Your task to perform on an android device: turn on wifi Image 0: 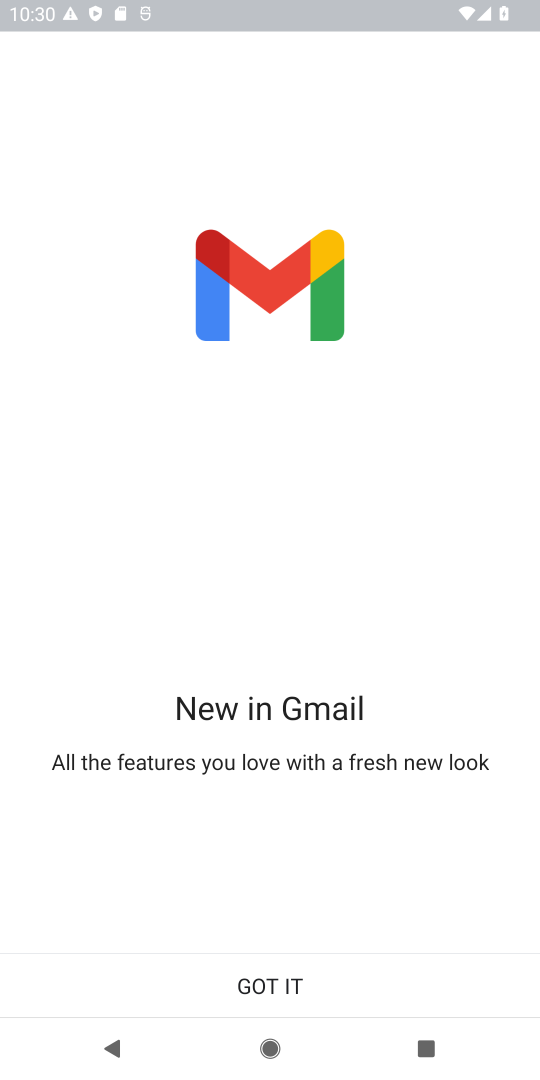
Step 0: press back button
Your task to perform on an android device: turn on wifi Image 1: 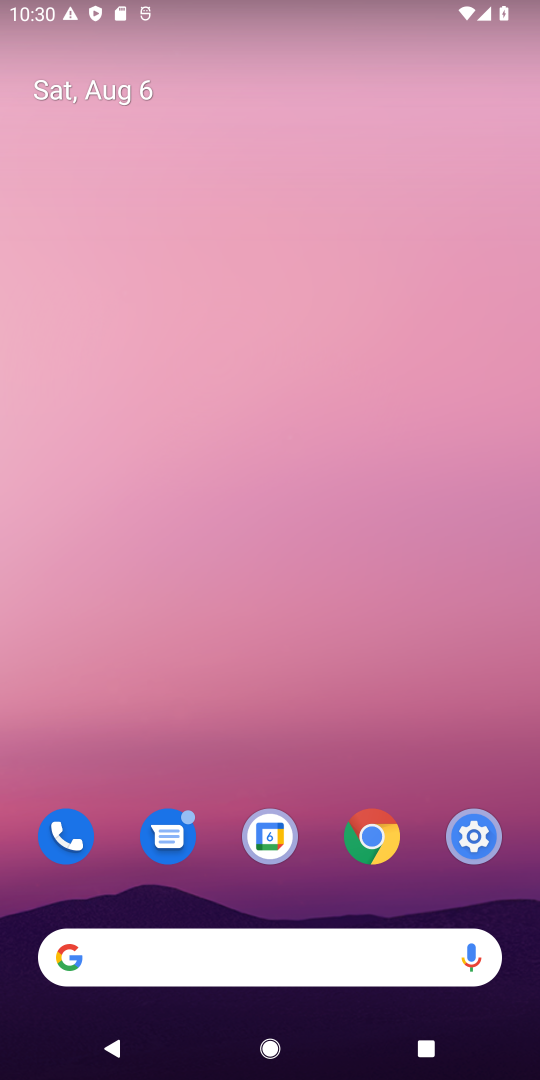
Step 1: click (460, 847)
Your task to perform on an android device: turn on wifi Image 2: 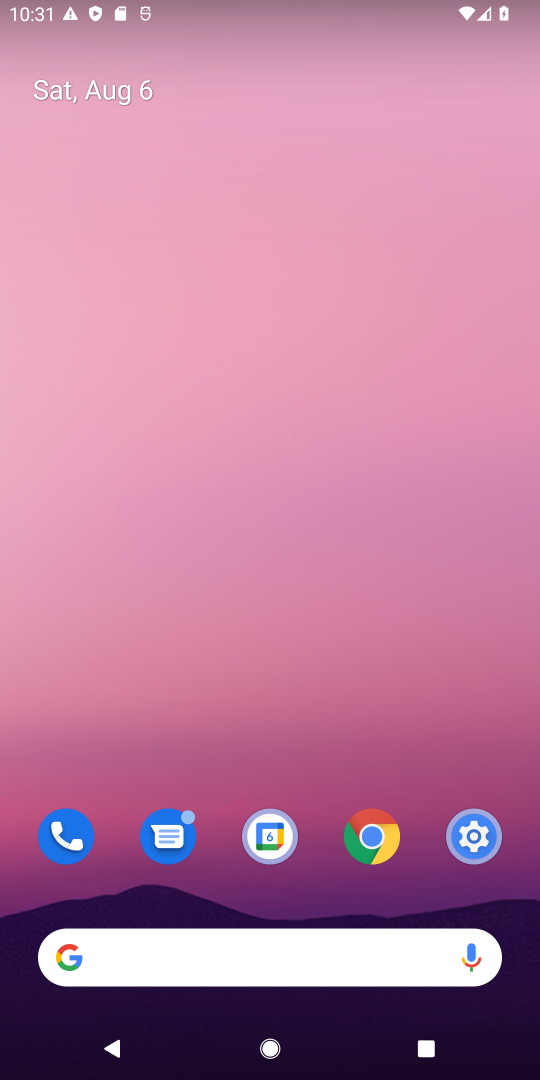
Step 2: click (476, 837)
Your task to perform on an android device: turn on wifi Image 3: 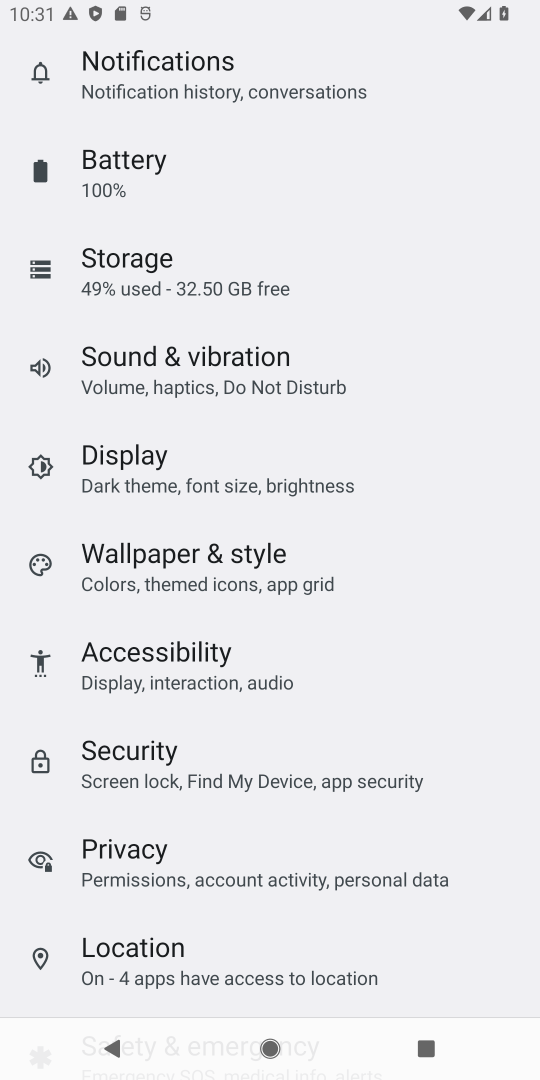
Step 3: drag from (223, 435) to (183, 1066)
Your task to perform on an android device: turn on wifi Image 4: 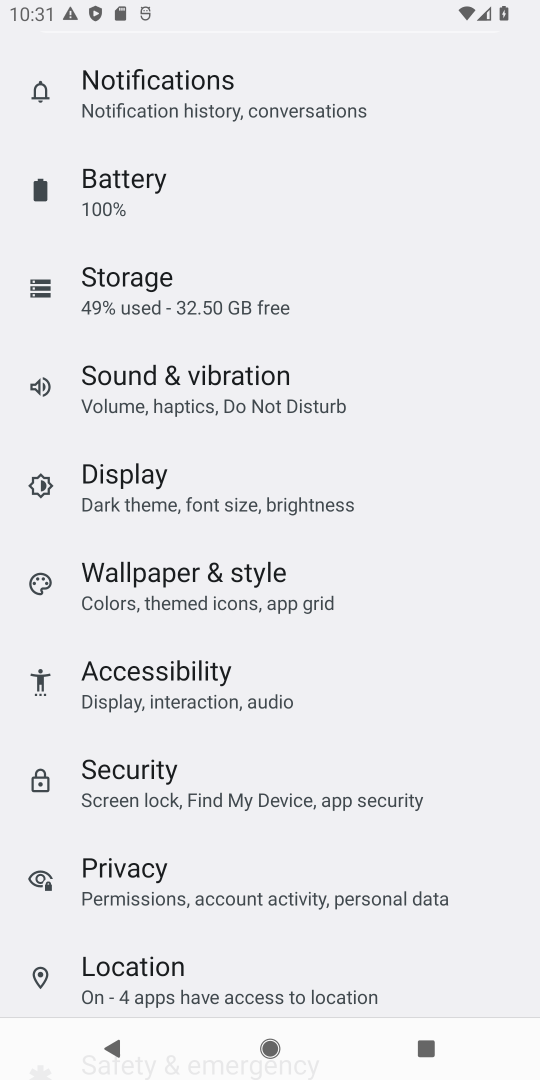
Step 4: drag from (273, 326) to (229, 1040)
Your task to perform on an android device: turn on wifi Image 5: 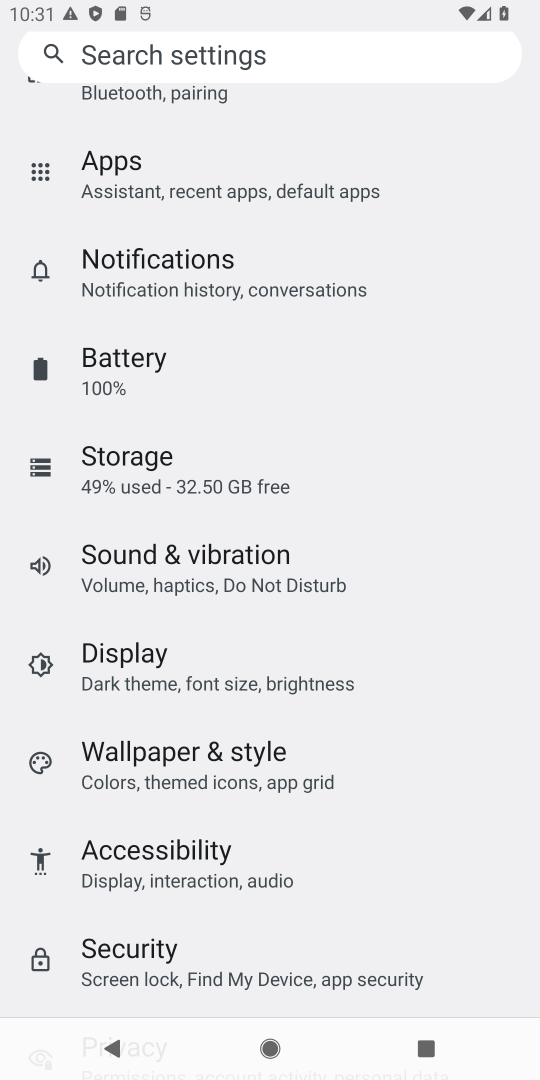
Step 5: drag from (248, 613) to (191, 1021)
Your task to perform on an android device: turn on wifi Image 6: 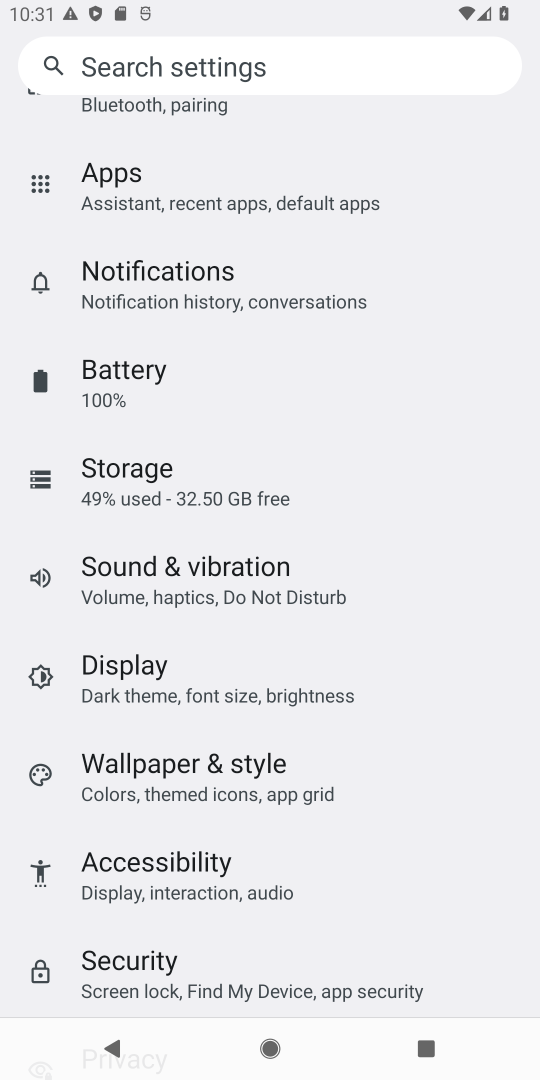
Step 6: drag from (216, 198) to (222, 856)
Your task to perform on an android device: turn on wifi Image 7: 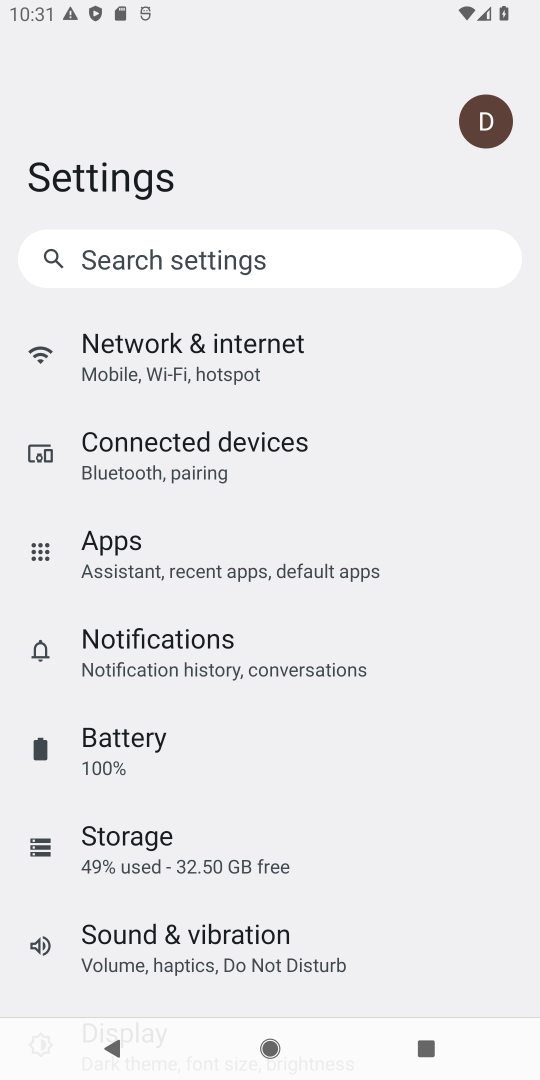
Step 7: click (258, 371)
Your task to perform on an android device: turn on wifi Image 8: 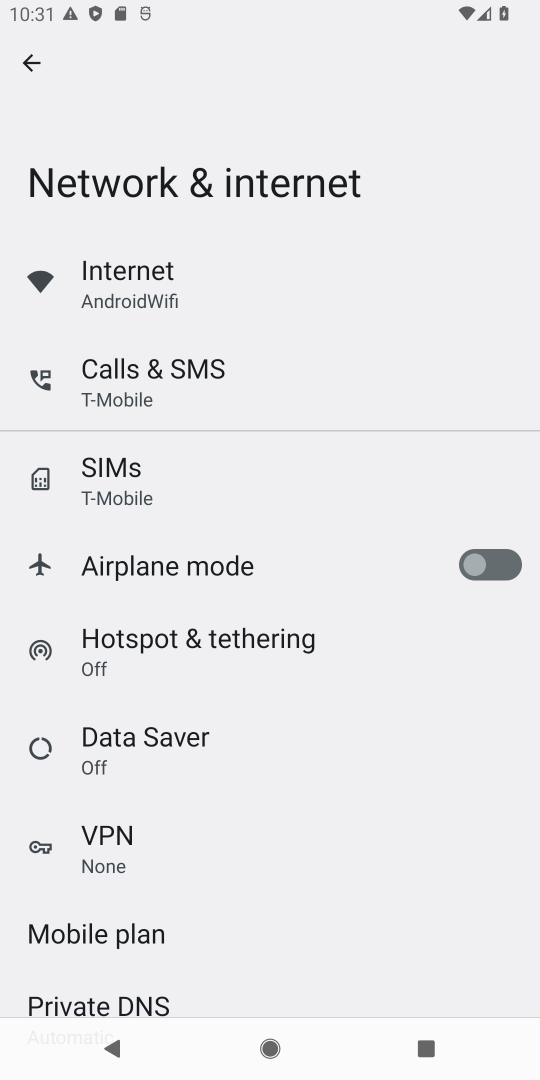
Step 8: click (120, 280)
Your task to perform on an android device: turn on wifi Image 9: 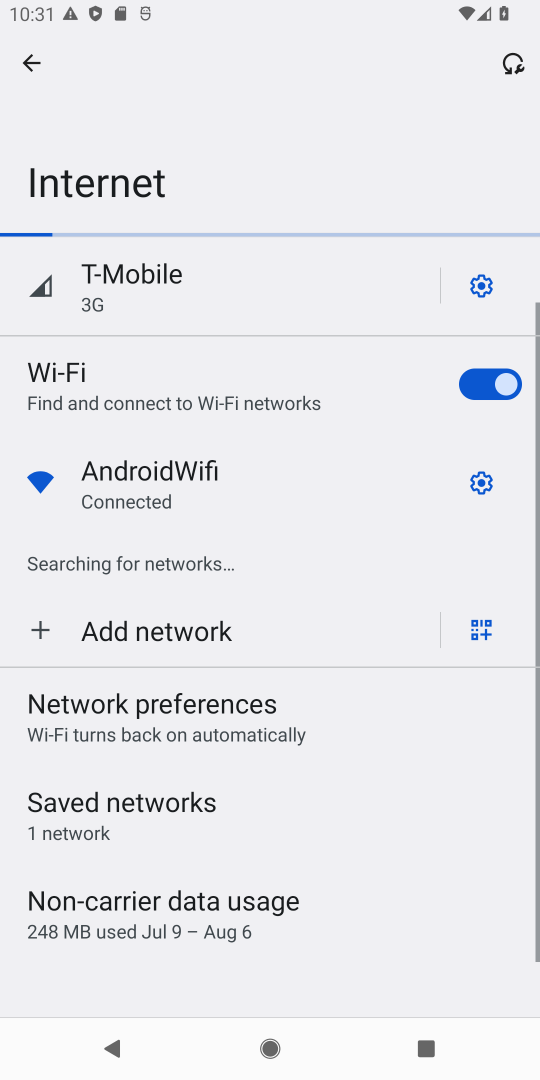
Step 9: task complete